Your task to perform on an android device: Turn on the flashlight Image 0: 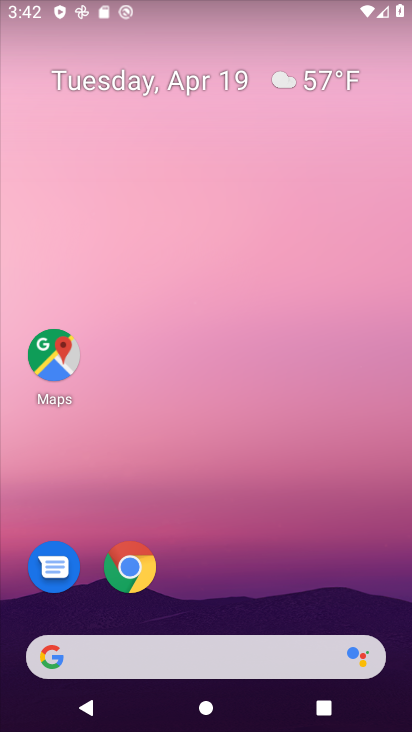
Step 0: drag from (231, 1) to (223, 451)
Your task to perform on an android device: Turn on the flashlight Image 1: 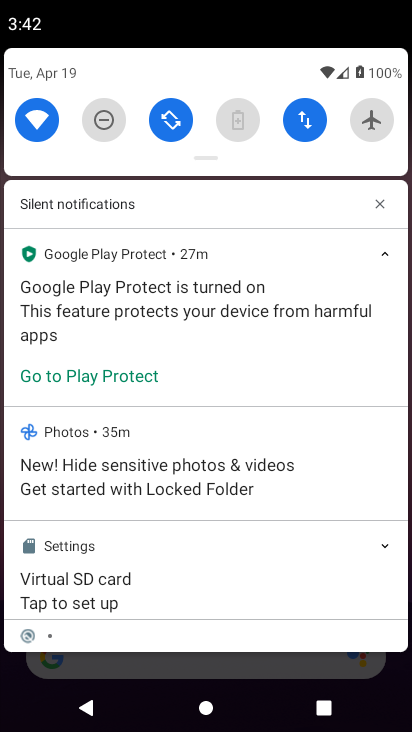
Step 1: drag from (206, 93) to (190, 408)
Your task to perform on an android device: Turn on the flashlight Image 2: 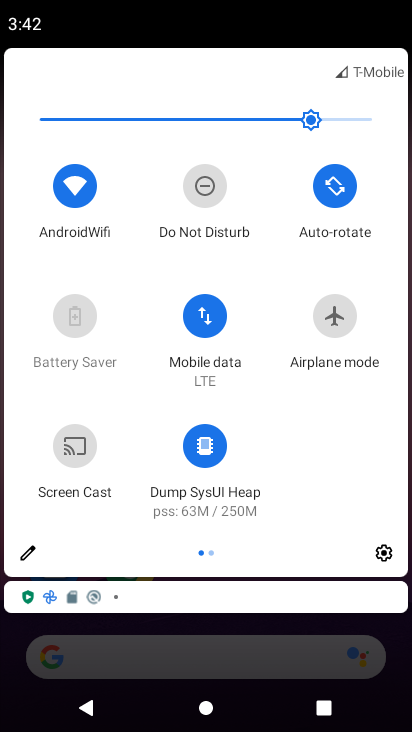
Step 2: click (28, 555)
Your task to perform on an android device: Turn on the flashlight Image 3: 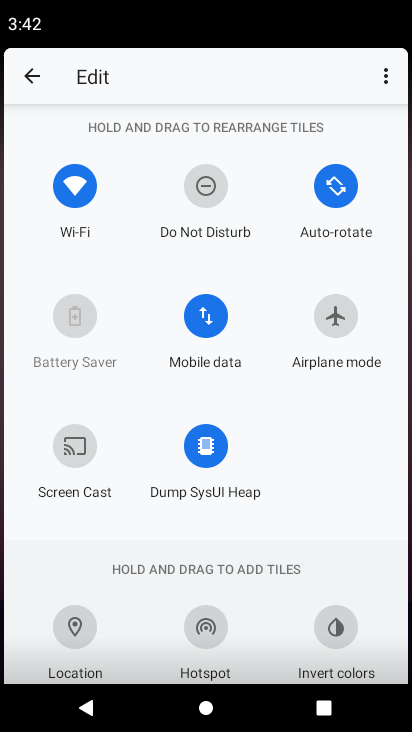
Step 3: task complete